Your task to perform on an android device: turn on data saver in the chrome app Image 0: 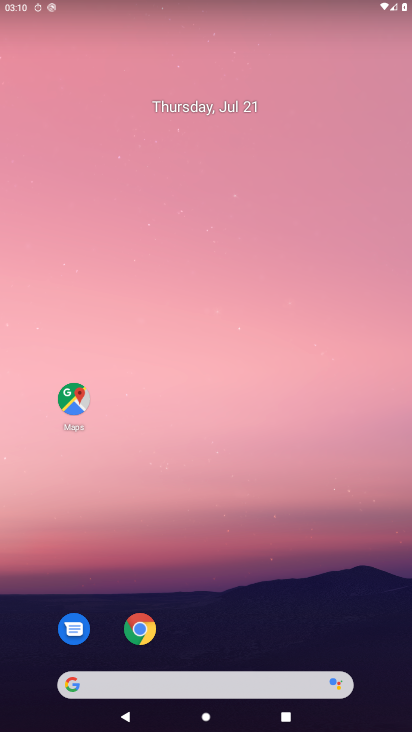
Step 0: drag from (24, 694) to (304, 44)
Your task to perform on an android device: turn on data saver in the chrome app Image 1: 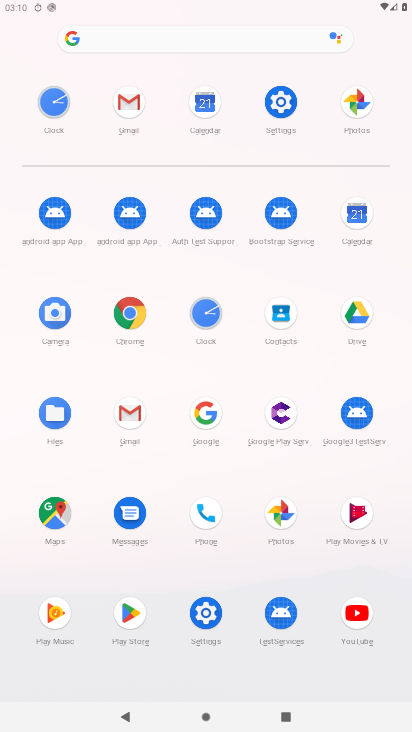
Step 1: click (122, 319)
Your task to perform on an android device: turn on data saver in the chrome app Image 2: 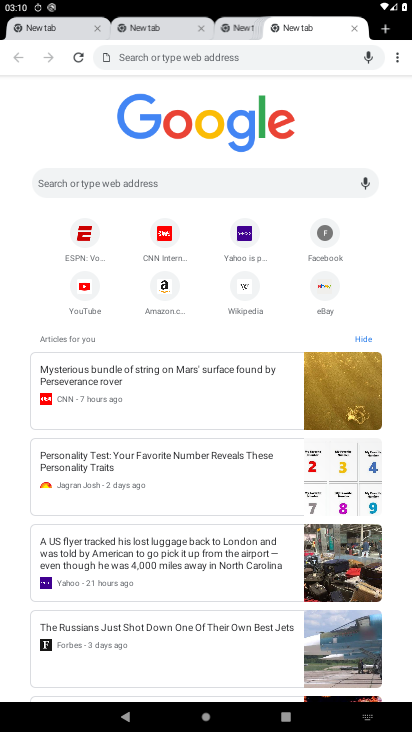
Step 2: click (399, 56)
Your task to perform on an android device: turn on data saver in the chrome app Image 3: 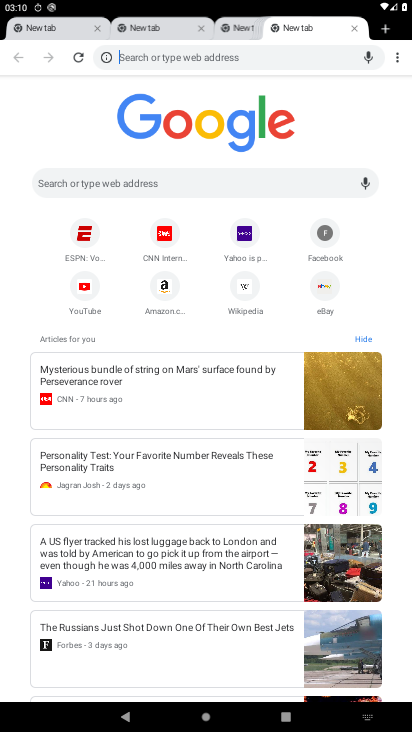
Step 3: task complete